Your task to perform on an android device: check google app version Image 0: 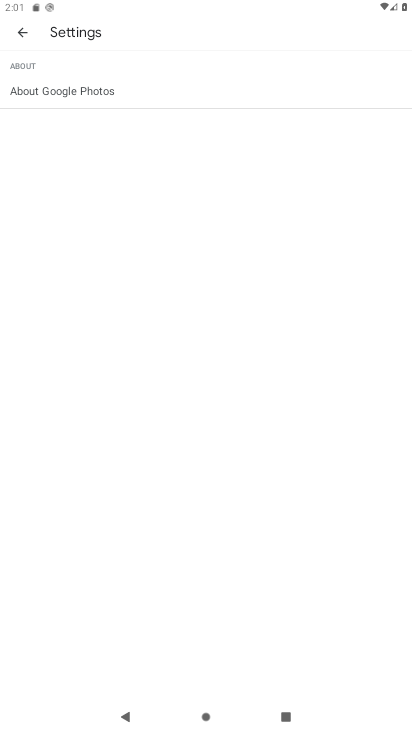
Step 0: press home button
Your task to perform on an android device: check google app version Image 1: 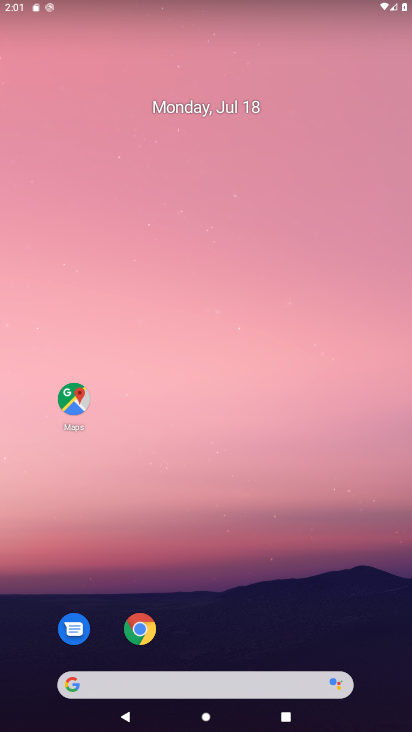
Step 1: click (69, 686)
Your task to perform on an android device: check google app version Image 2: 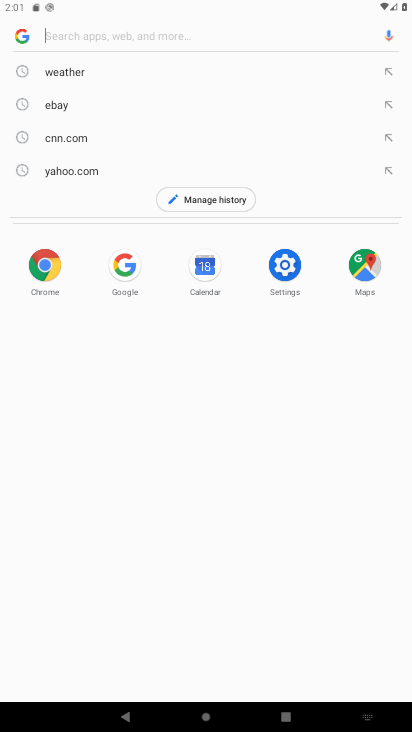
Step 2: click (22, 41)
Your task to perform on an android device: check google app version Image 3: 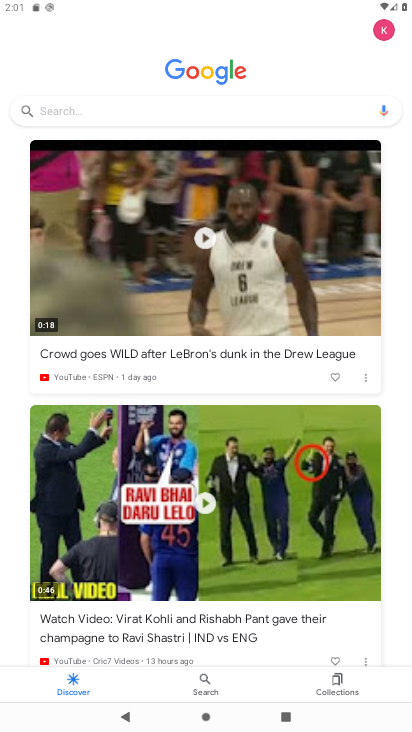
Step 3: click (383, 31)
Your task to perform on an android device: check google app version Image 4: 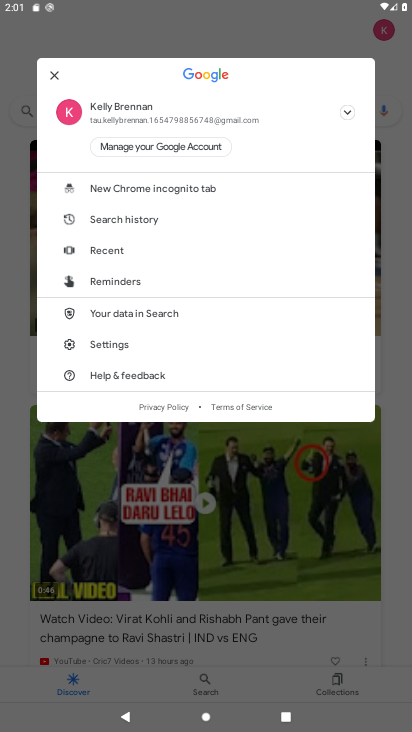
Step 4: click (104, 344)
Your task to perform on an android device: check google app version Image 5: 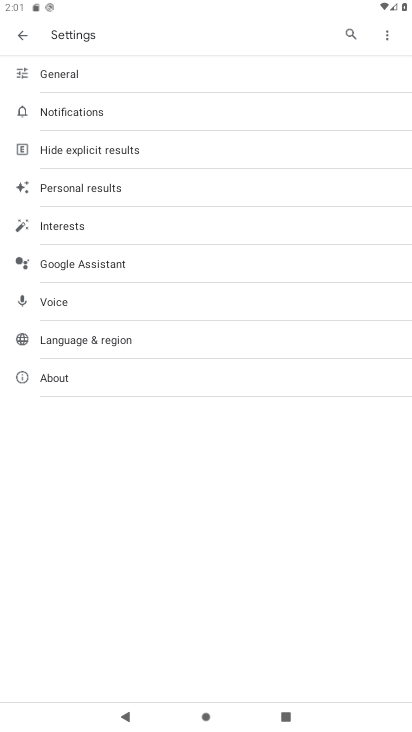
Step 5: click (49, 374)
Your task to perform on an android device: check google app version Image 6: 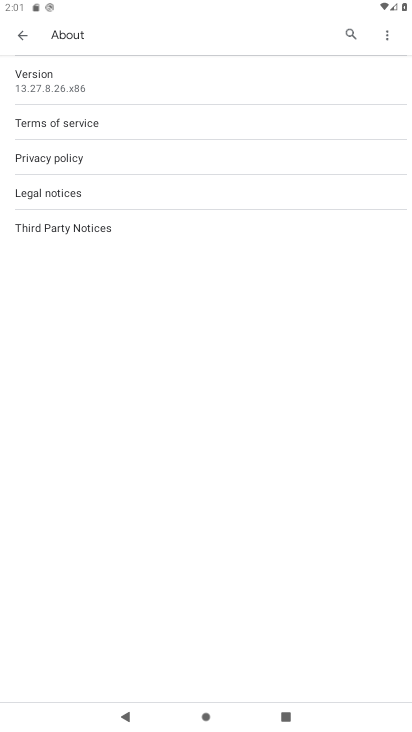
Step 6: task complete